Your task to perform on an android device: manage bookmarks in the chrome app Image 0: 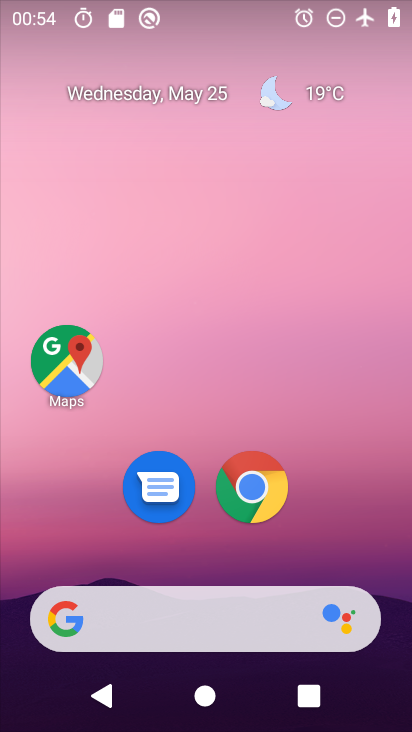
Step 0: click (256, 491)
Your task to perform on an android device: manage bookmarks in the chrome app Image 1: 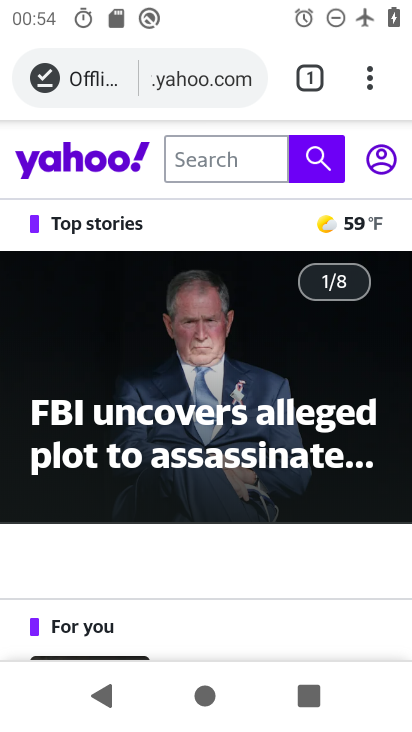
Step 1: click (369, 73)
Your task to perform on an android device: manage bookmarks in the chrome app Image 2: 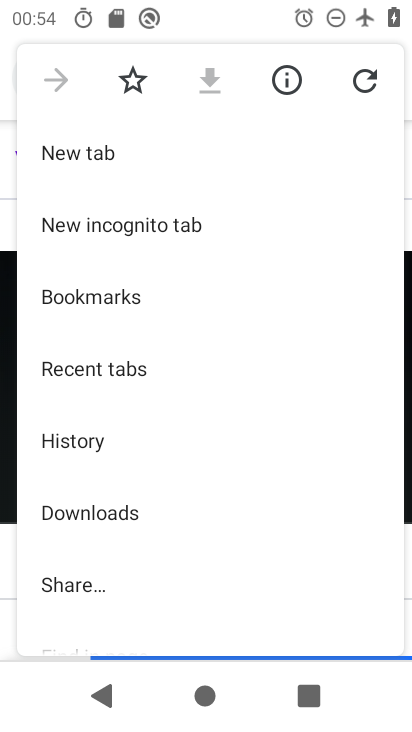
Step 2: click (109, 300)
Your task to perform on an android device: manage bookmarks in the chrome app Image 3: 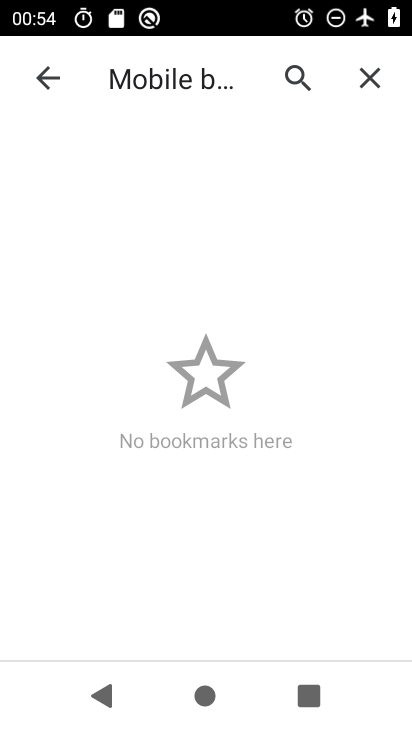
Step 3: task complete